Your task to perform on an android device: allow cookies in the chrome app Image 0: 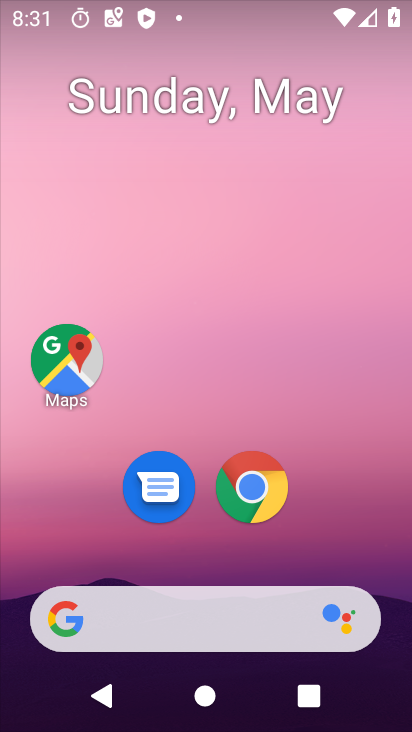
Step 0: click (244, 482)
Your task to perform on an android device: allow cookies in the chrome app Image 1: 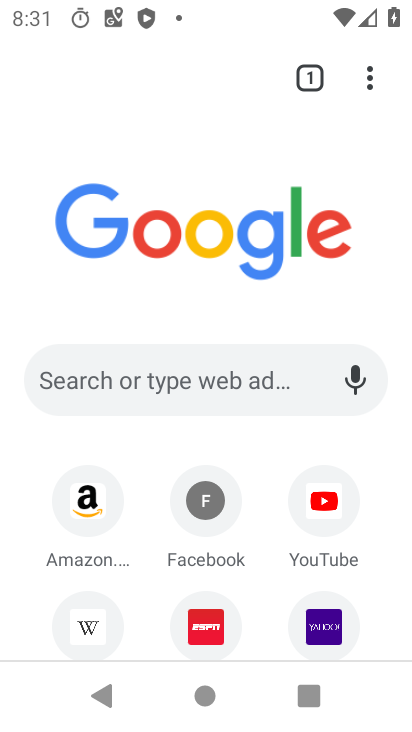
Step 1: click (375, 82)
Your task to perform on an android device: allow cookies in the chrome app Image 2: 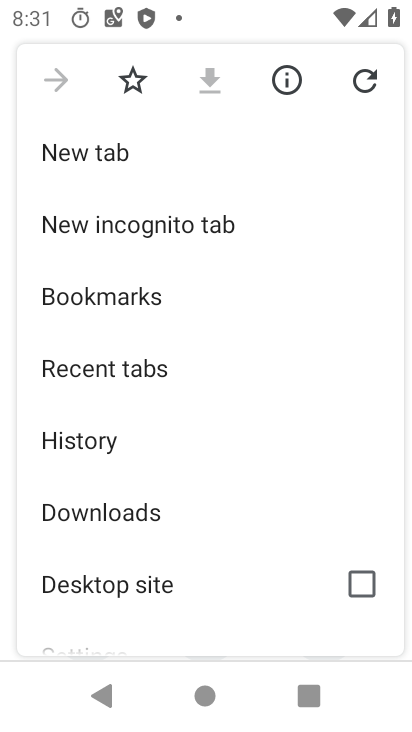
Step 2: drag from (182, 560) to (295, 129)
Your task to perform on an android device: allow cookies in the chrome app Image 3: 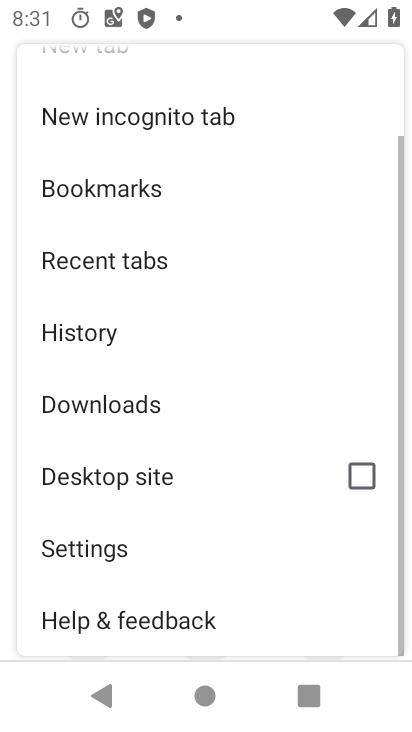
Step 3: click (100, 554)
Your task to perform on an android device: allow cookies in the chrome app Image 4: 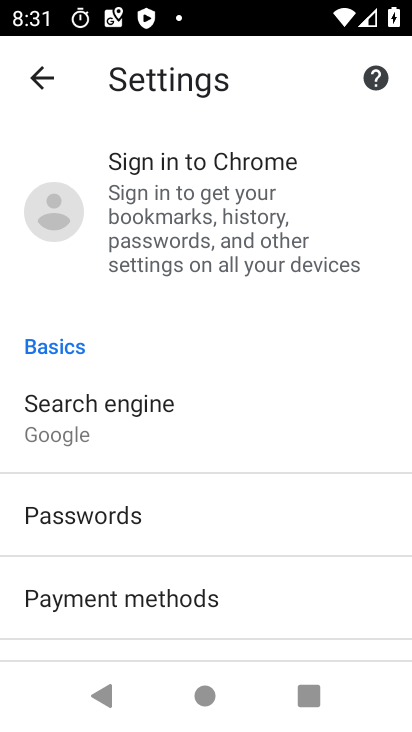
Step 4: drag from (200, 616) to (362, 124)
Your task to perform on an android device: allow cookies in the chrome app Image 5: 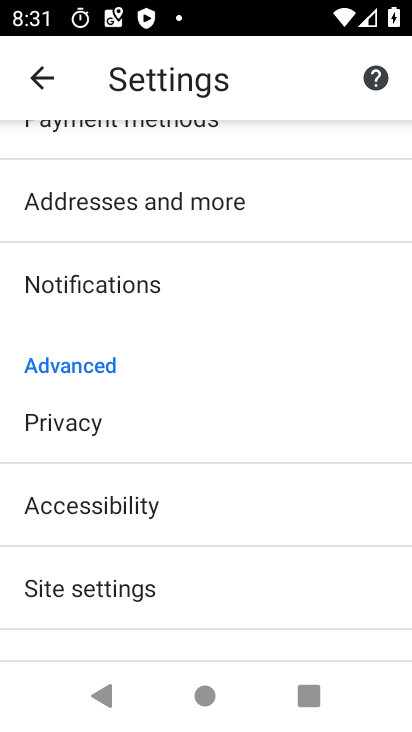
Step 5: click (244, 582)
Your task to perform on an android device: allow cookies in the chrome app Image 6: 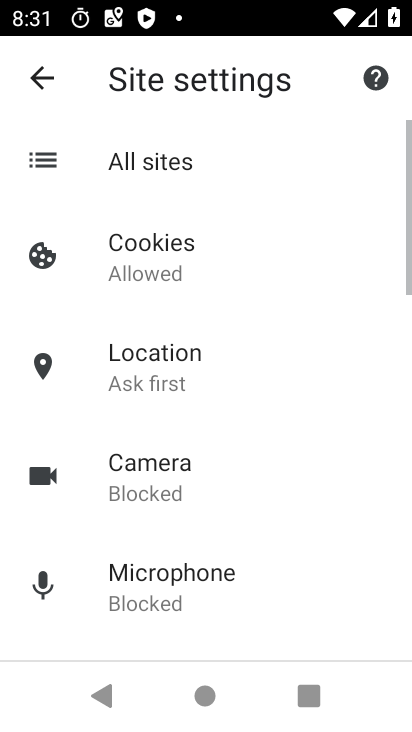
Step 6: click (151, 270)
Your task to perform on an android device: allow cookies in the chrome app Image 7: 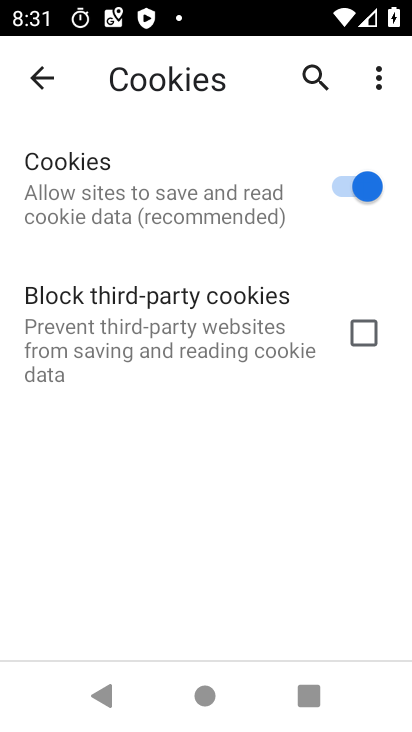
Step 7: task complete